Your task to perform on an android device: open chrome privacy settings Image 0: 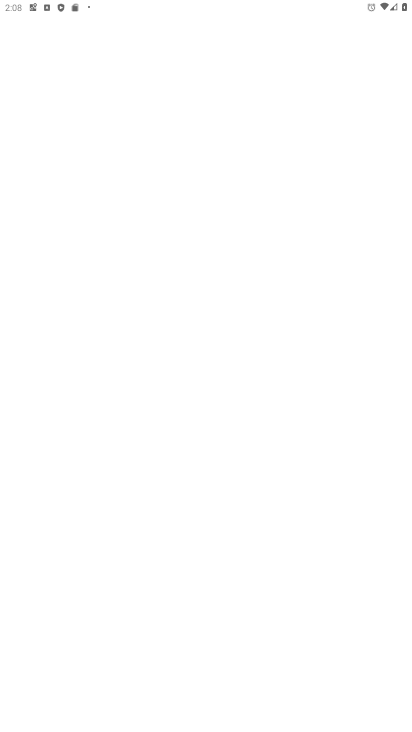
Step 0: press home button
Your task to perform on an android device: open chrome privacy settings Image 1: 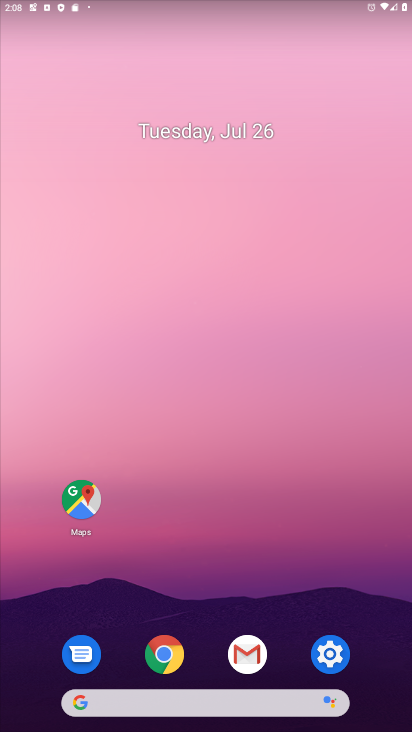
Step 1: click (169, 660)
Your task to perform on an android device: open chrome privacy settings Image 2: 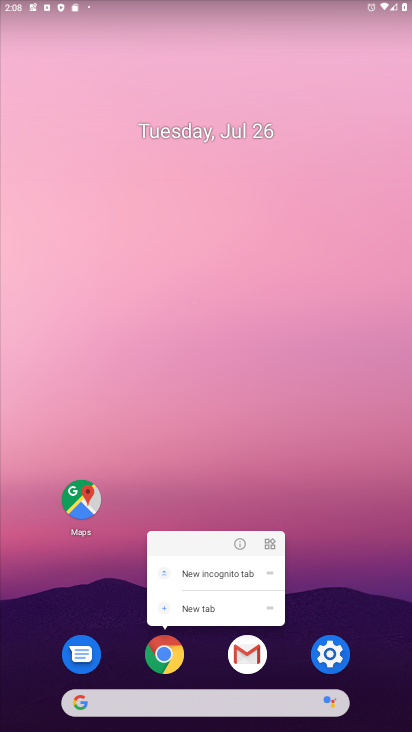
Step 2: click (169, 661)
Your task to perform on an android device: open chrome privacy settings Image 3: 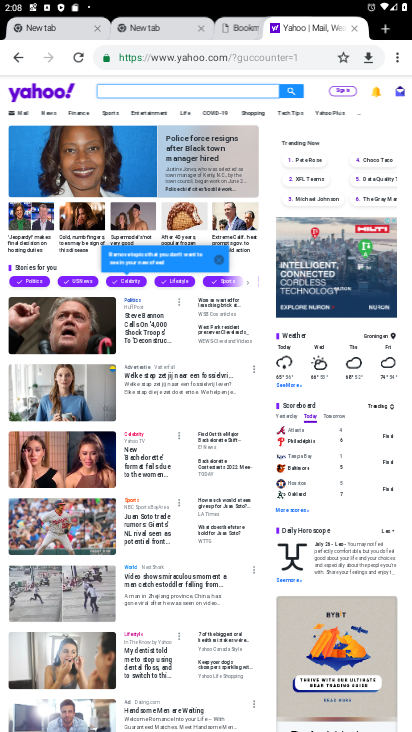
Step 3: click (400, 58)
Your task to perform on an android device: open chrome privacy settings Image 4: 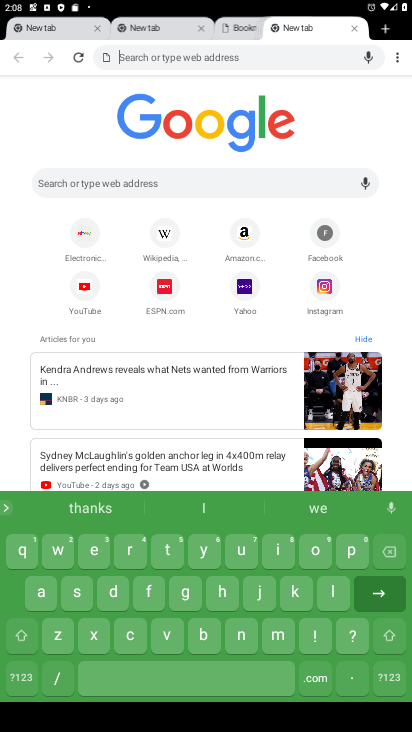
Step 4: click (390, 65)
Your task to perform on an android device: open chrome privacy settings Image 5: 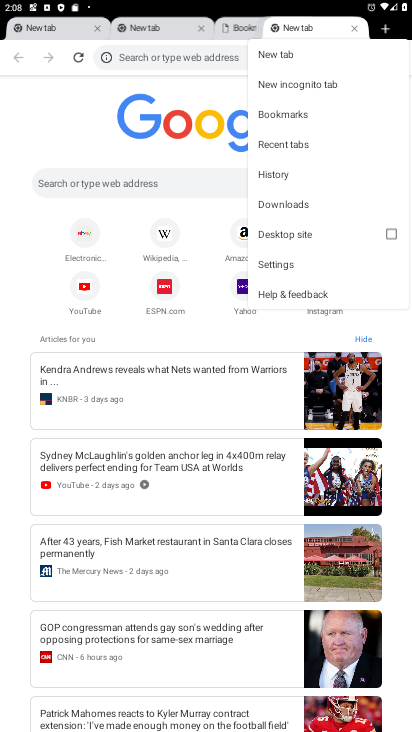
Step 5: click (274, 262)
Your task to perform on an android device: open chrome privacy settings Image 6: 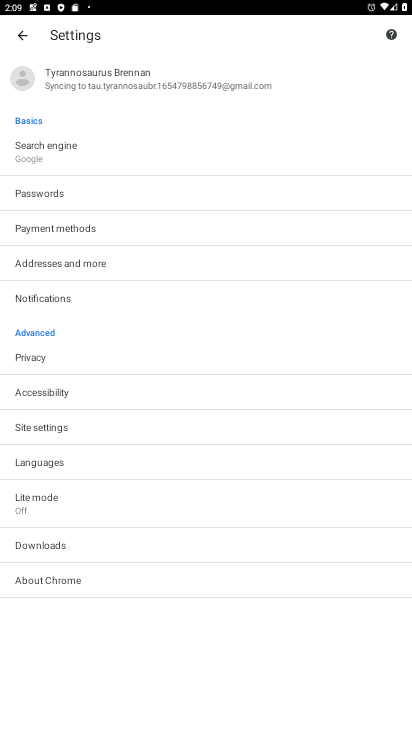
Step 6: click (66, 350)
Your task to perform on an android device: open chrome privacy settings Image 7: 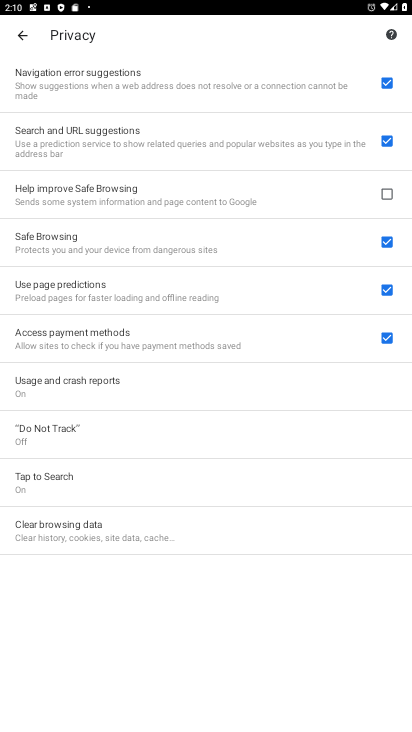
Step 7: task complete